Your task to perform on an android device: turn smart compose on in the gmail app Image 0: 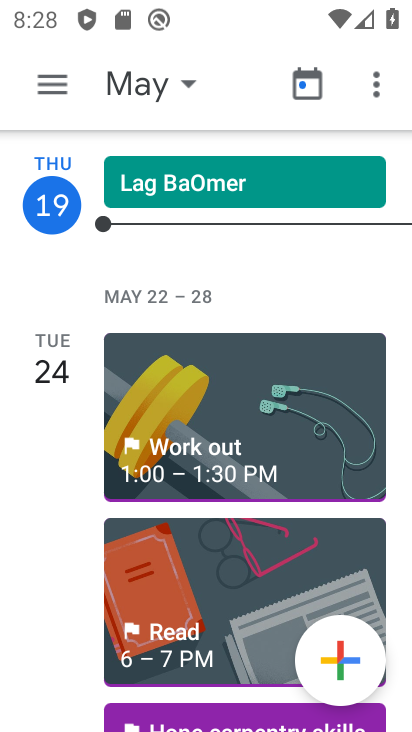
Step 0: press home button
Your task to perform on an android device: turn smart compose on in the gmail app Image 1: 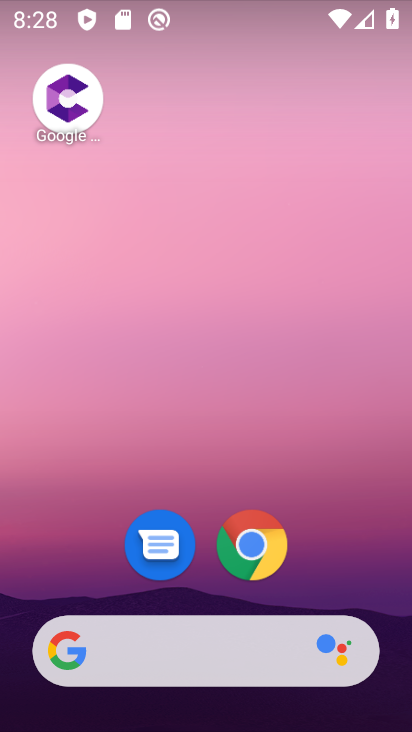
Step 1: drag from (370, 578) to (319, 242)
Your task to perform on an android device: turn smart compose on in the gmail app Image 2: 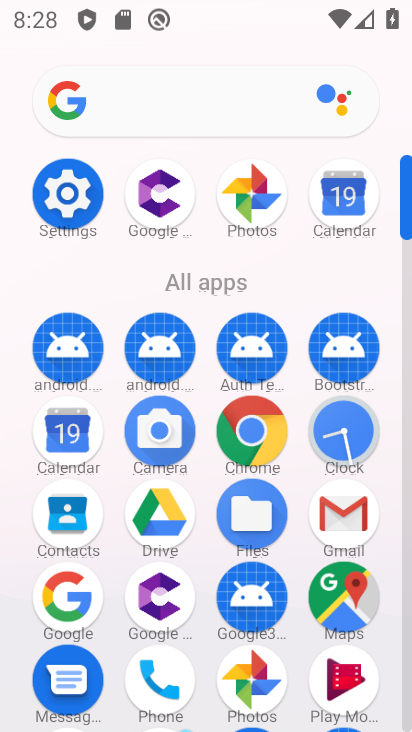
Step 2: click (323, 550)
Your task to perform on an android device: turn smart compose on in the gmail app Image 3: 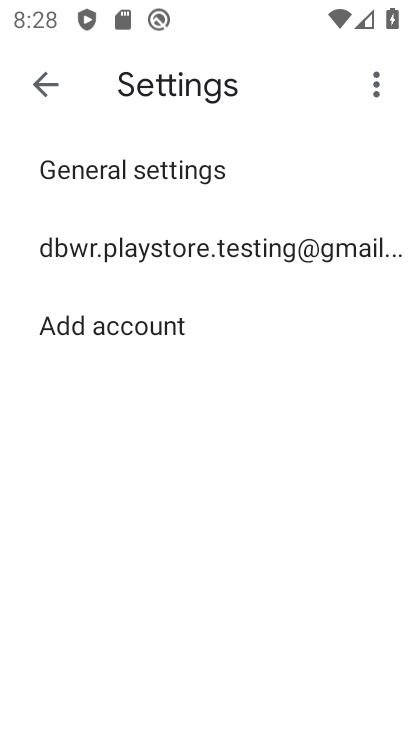
Step 3: click (86, 245)
Your task to perform on an android device: turn smart compose on in the gmail app Image 4: 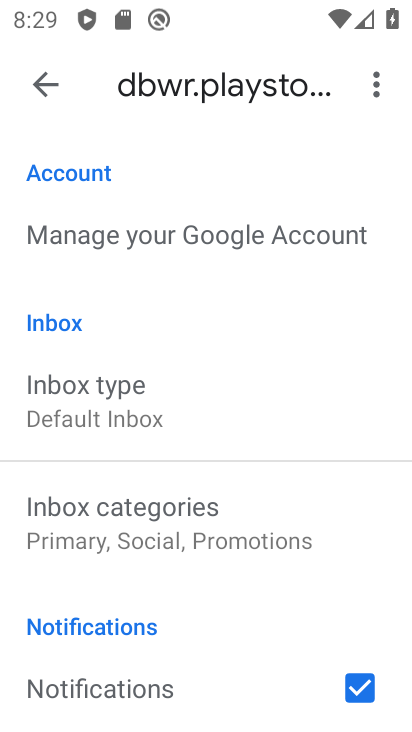
Step 4: task complete